Your task to perform on an android device: change notifications settings Image 0: 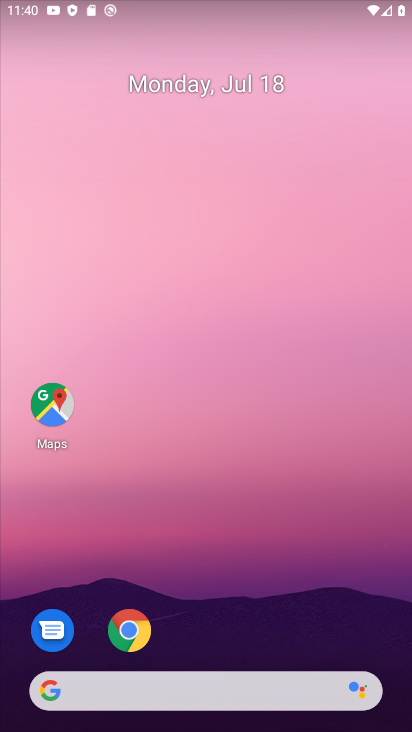
Step 0: drag from (203, 561) to (202, 122)
Your task to perform on an android device: change notifications settings Image 1: 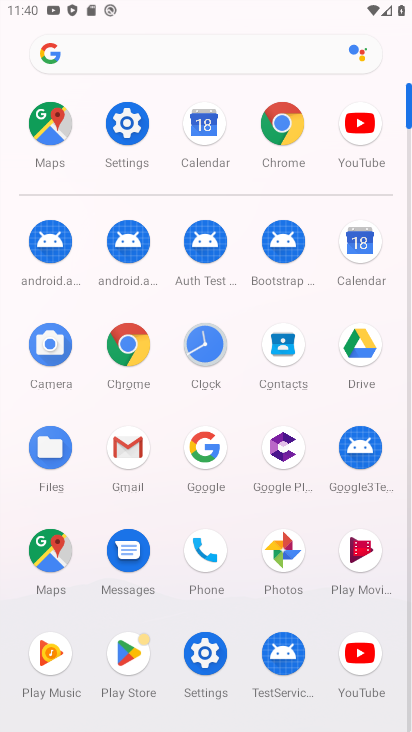
Step 1: click (223, 663)
Your task to perform on an android device: change notifications settings Image 2: 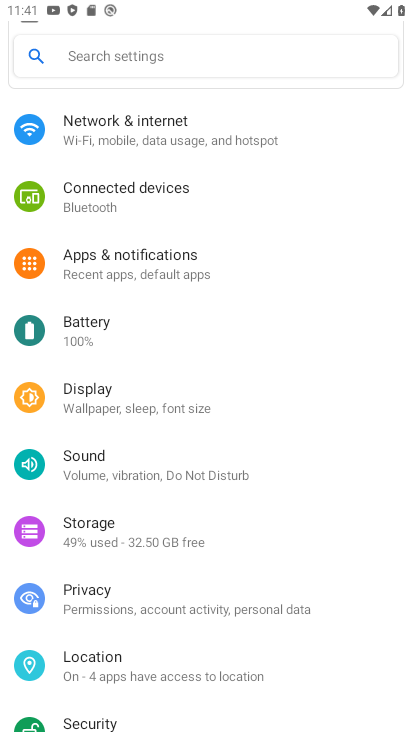
Step 2: click (162, 277)
Your task to perform on an android device: change notifications settings Image 3: 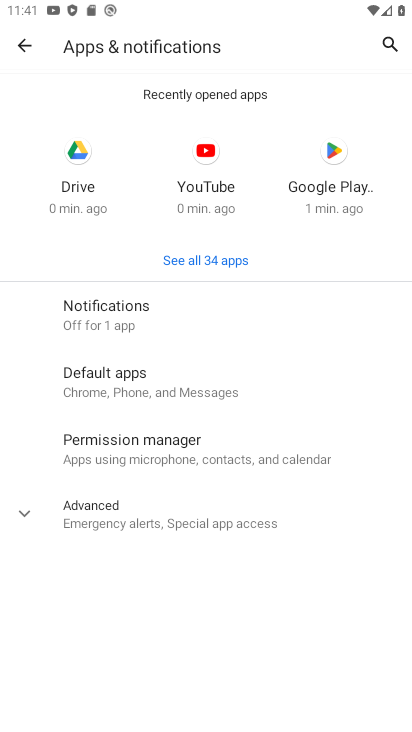
Step 3: click (100, 319)
Your task to perform on an android device: change notifications settings Image 4: 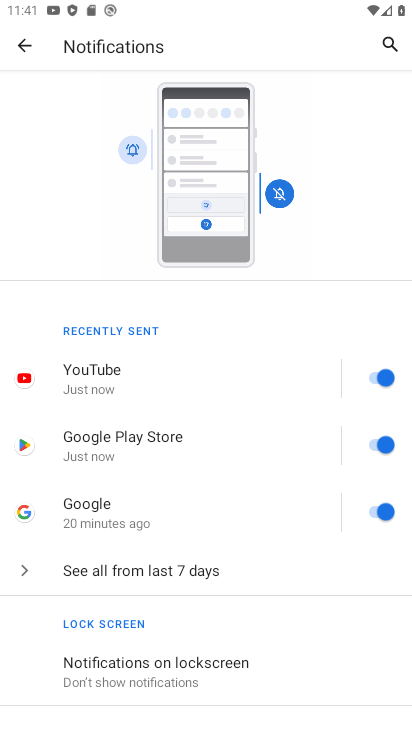
Step 4: click (133, 564)
Your task to perform on an android device: change notifications settings Image 5: 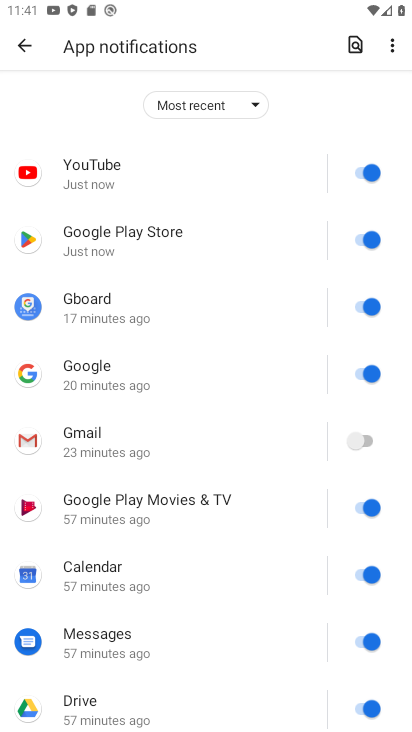
Step 5: click (362, 175)
Your task to perform on an android device: change notifications settings Image 6: 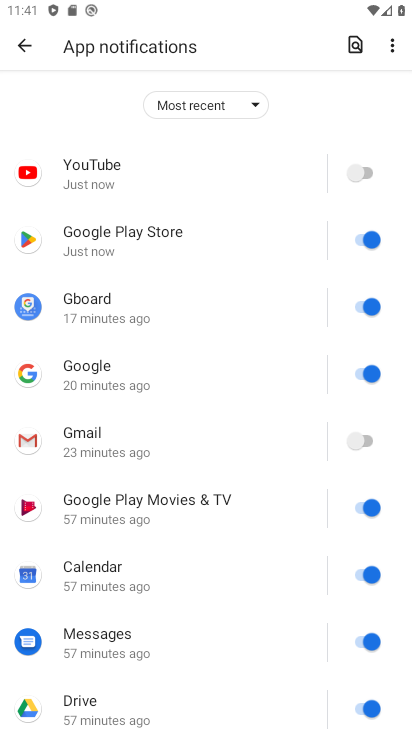
Step 6: click (368, 240)
Your task to perform on an android device: change notifications settings Image 7: 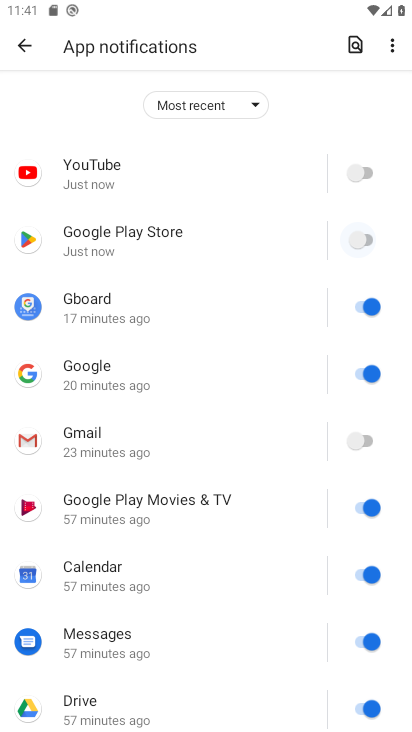
Step 7: click (367, 310)
Your task to perform on an android device: change notifications settings Image 8: 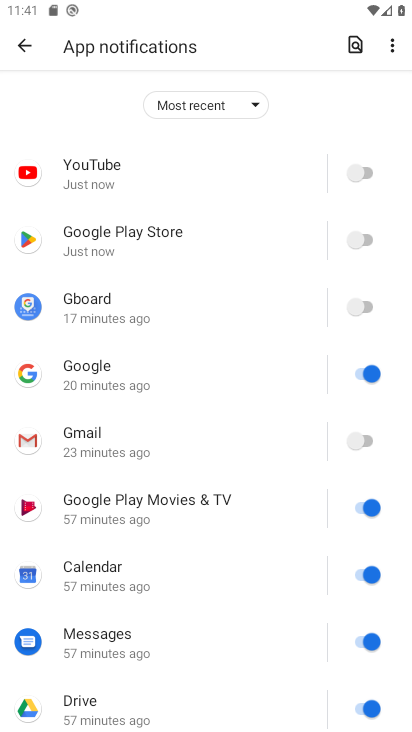
Step 8: click (354, 372)
Your task to perform on an android device: change notifications settings Image 9: 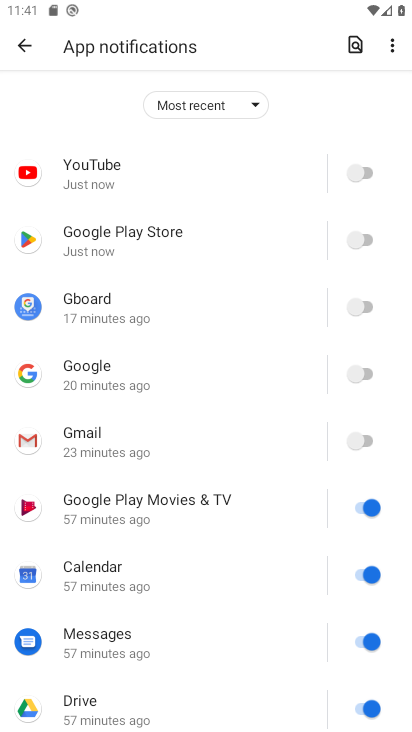
Step 9: click (361, 508)
Your task to perform on an android device: change notifications settings Image 10: 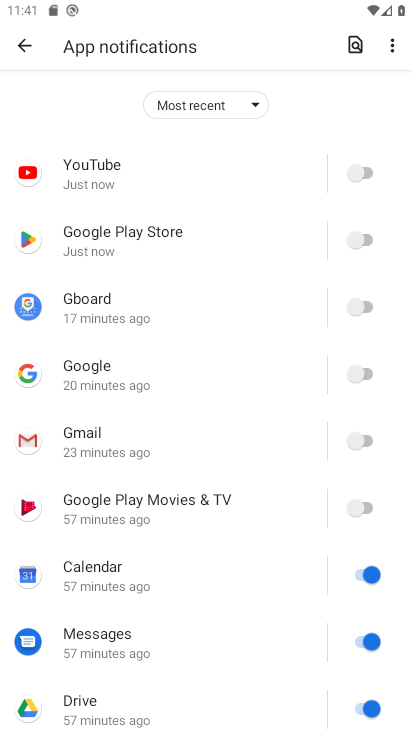
Step 10: click (362, 580)
Your task to perform on an android device: change notifications settings Image 11: 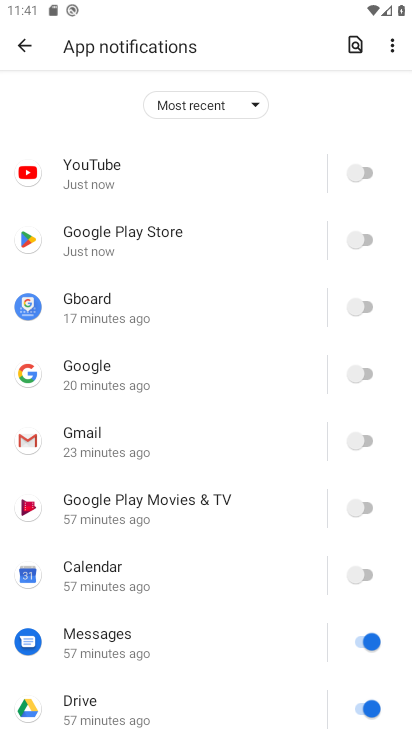
Step 11: click (354, 650)
Your task to perform on an android device: change notifications settings Image 12: 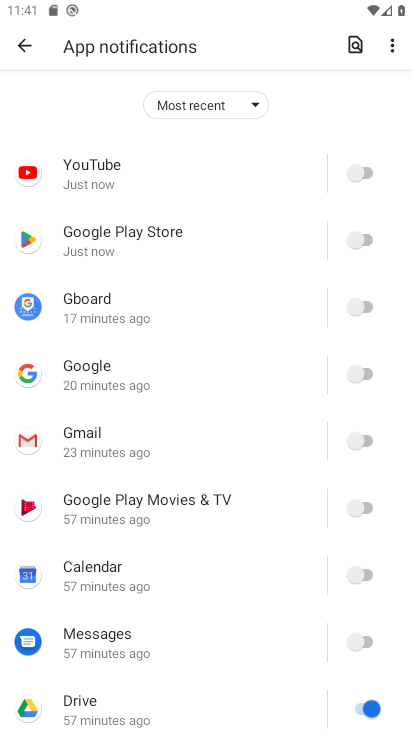
Step 12: click (352, 707)
Your task to perform on an android device: change notifications settings Image 13: 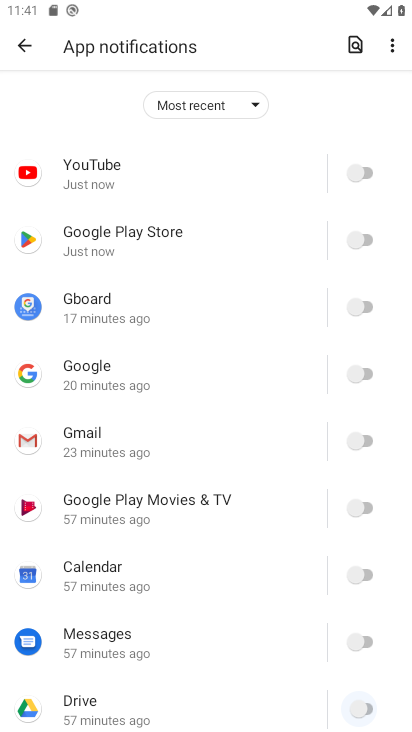
Step 13: drag from (258, 697) to (276, 196)
Your task to perform on an android device: change notifications settings Image 14: 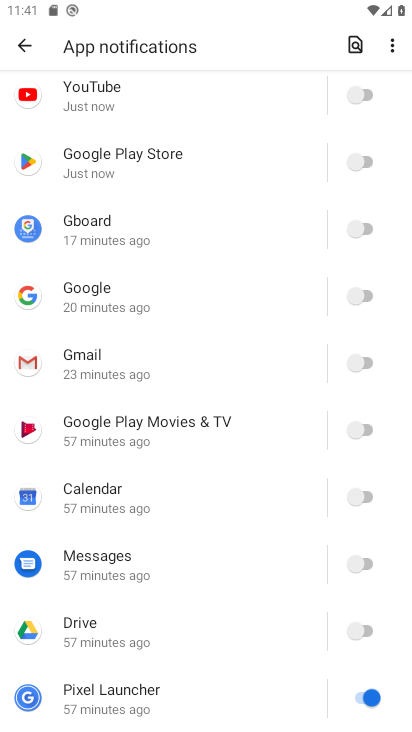
Step 14: click (357, 694)
Your task to perform on an android device: change notifications settings Image 15: 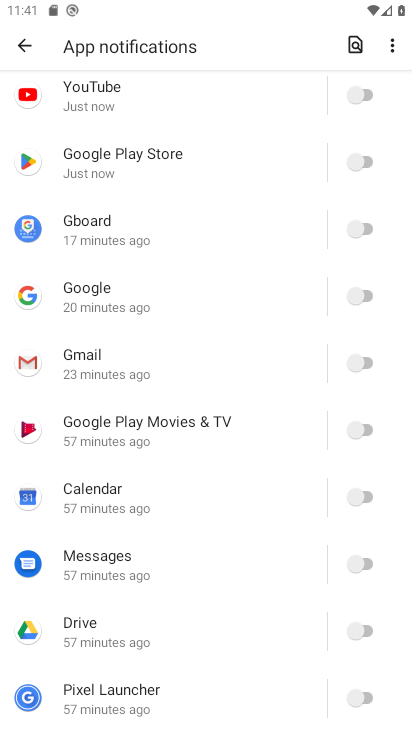
Step 15: task complete